Your task to perform on an android device: check storage Image 0: 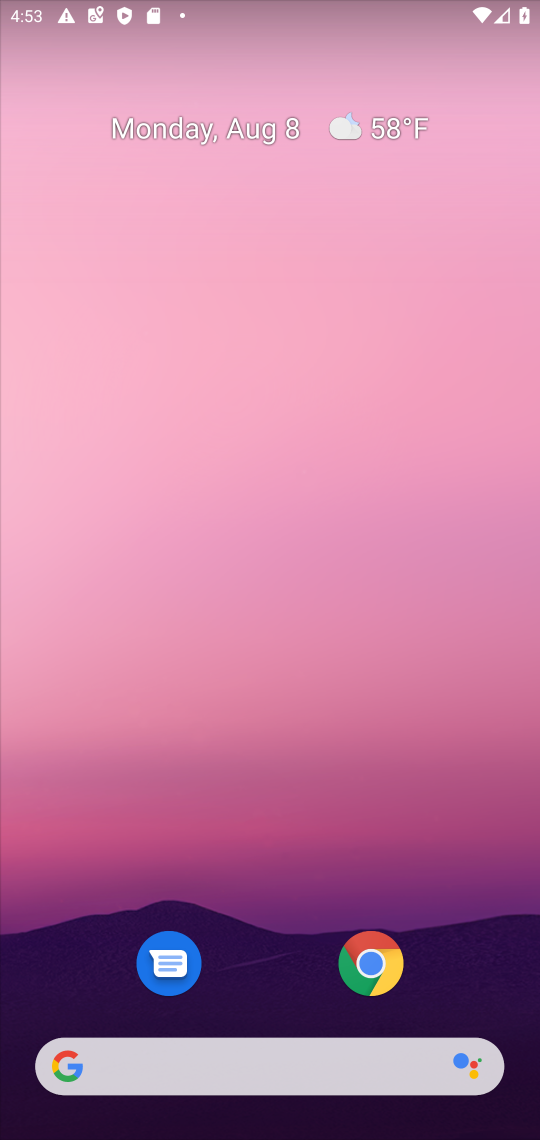
Step 0: drag from (355, 779) to (335, 308)
Your task to perform on an android device: check storage Image 1: 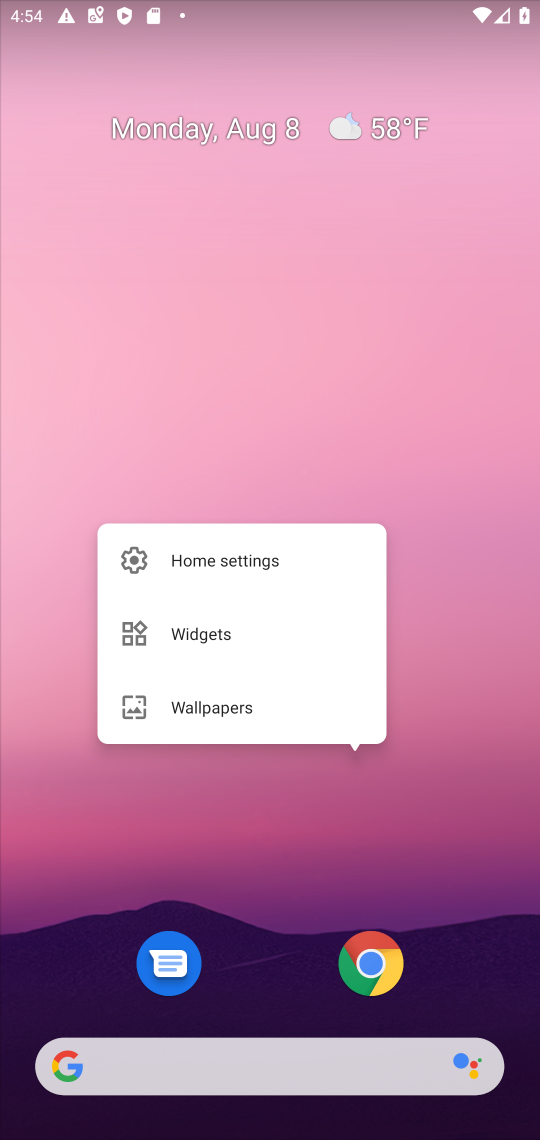
Step 1: drag from (261, 892) to (199, 321)
Your task to perform on an android device: check storage Image 2: 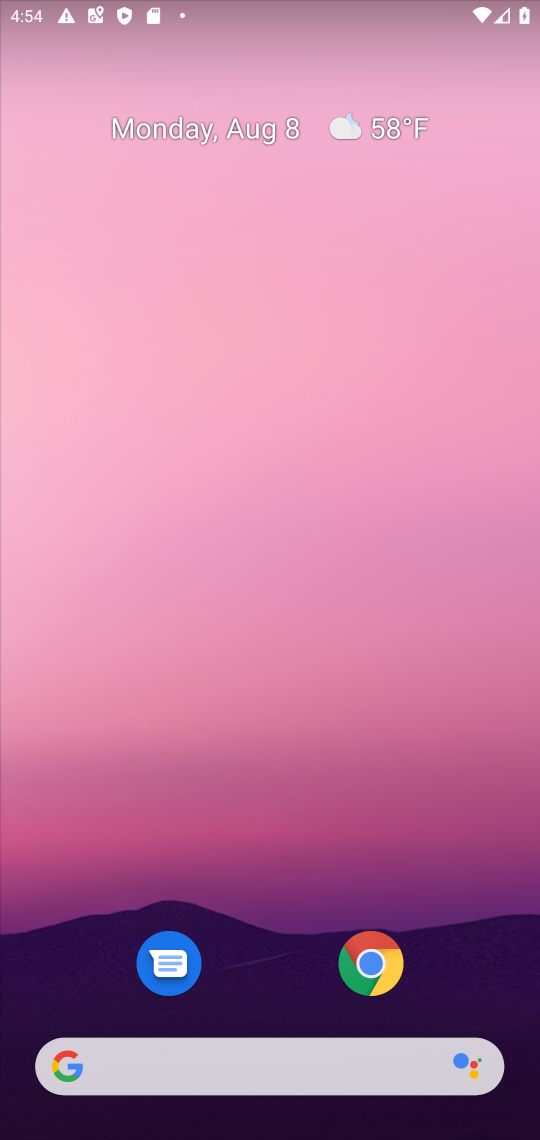
Step 2: click (239, 122)
Your task to perform on an android device: check storage Image 3: 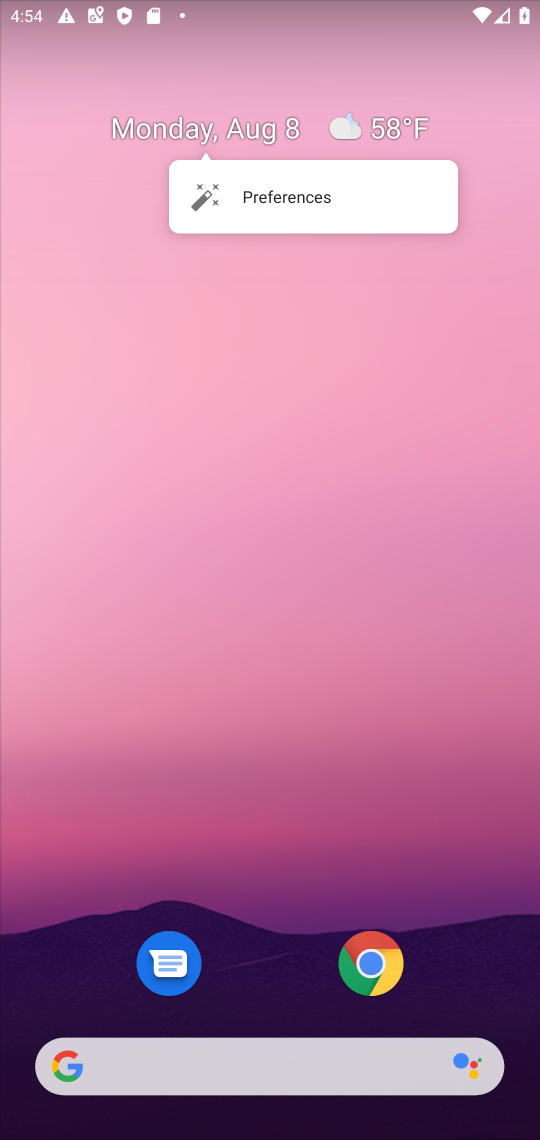
Step 3: click (308, 567)
Your task to perform on an android device: check storage Image 4: 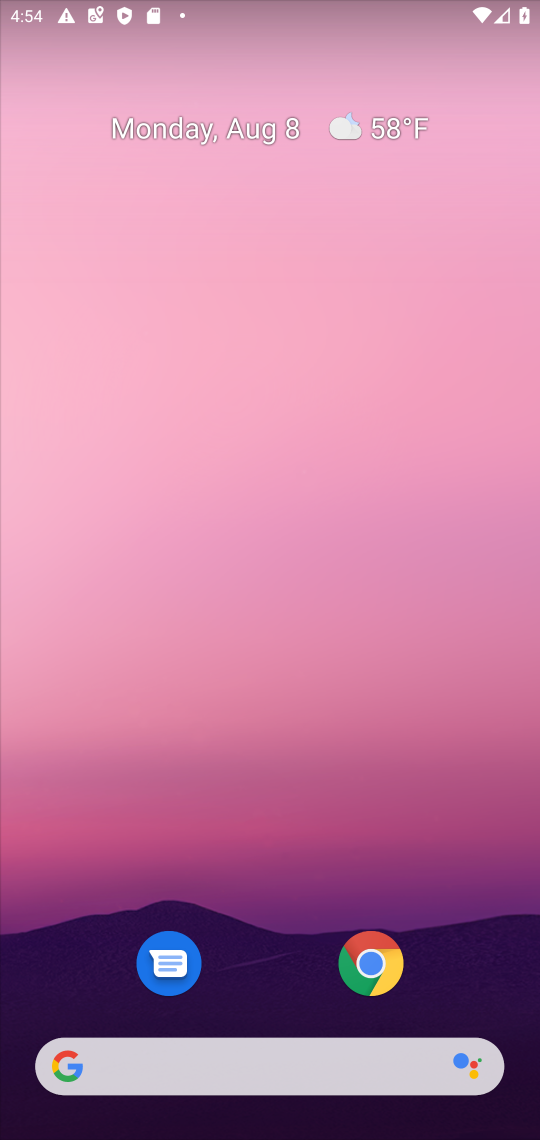
Step 4: drag from (232, 727) to (178, 19)
Your task to perform on an android device: check storage Image 5: 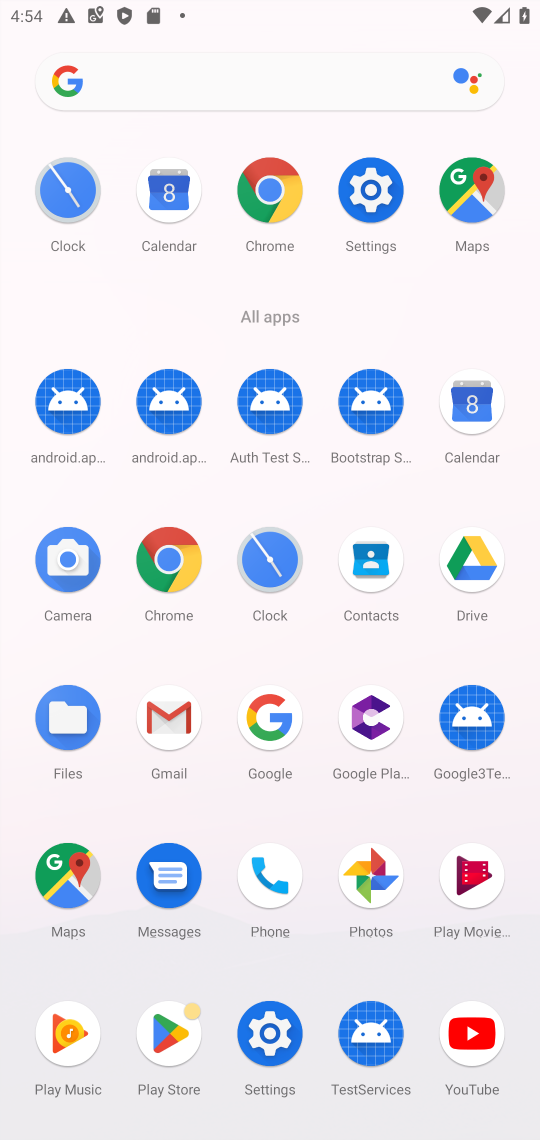
Step 5: click (263, 1005)
Your task to perform on an android device: check storage Image 6: 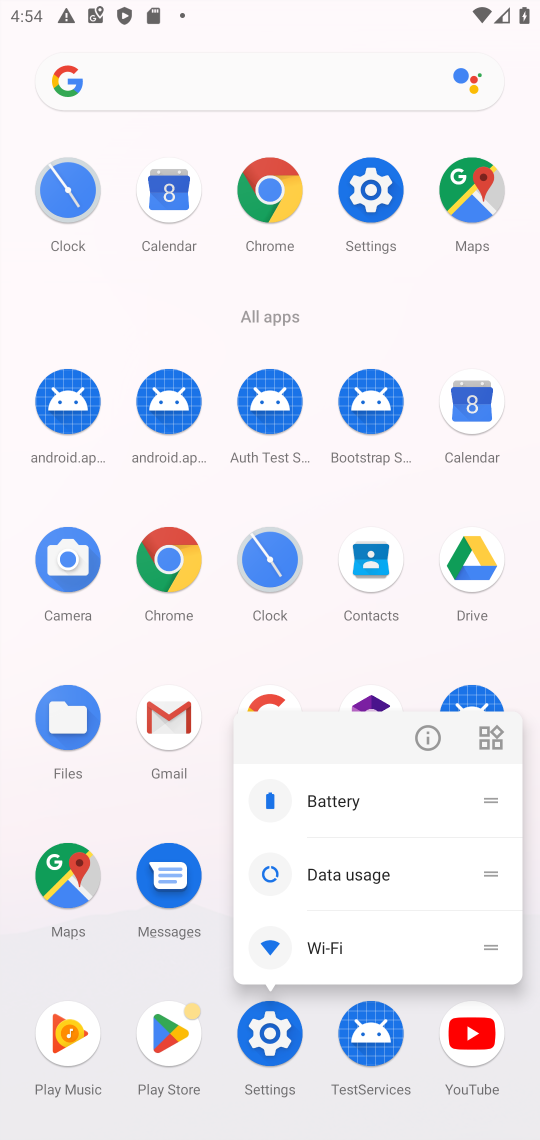
Step 6: click (267, 1025)
Your task to perform on an android device: check storage Image 7: 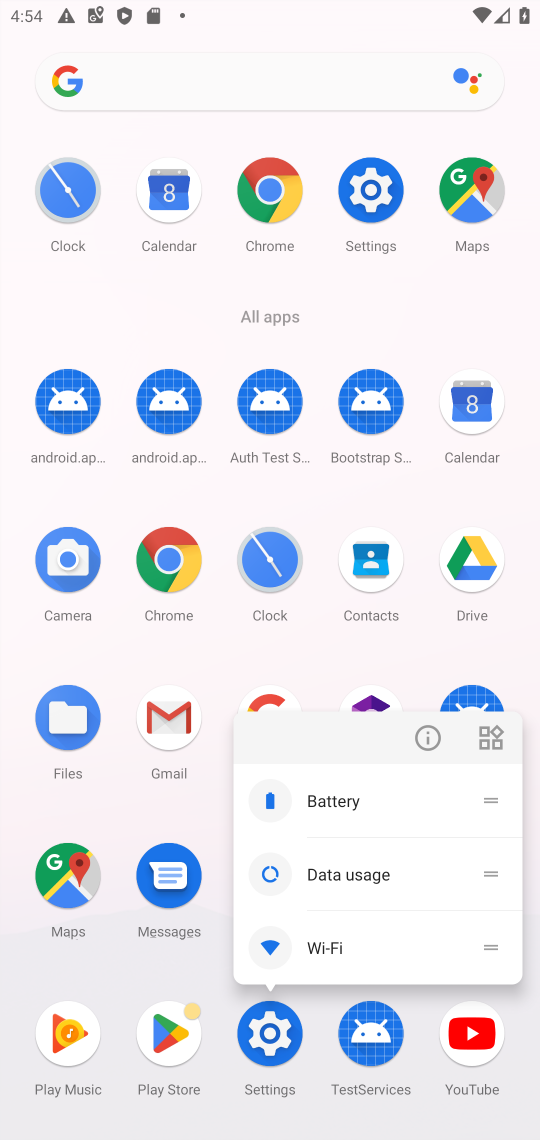
Step 7: click (267, 1025)
Your task to perform on an android device: check storage Image 8: 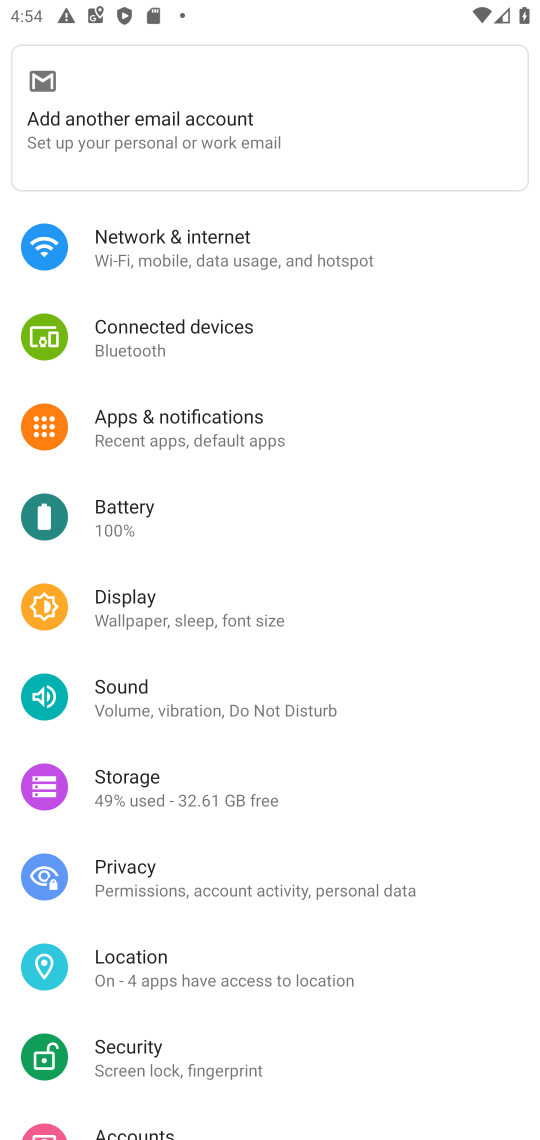
Step 8: click (224, 802)
Your task to perform on an android device: check storage Image 9: 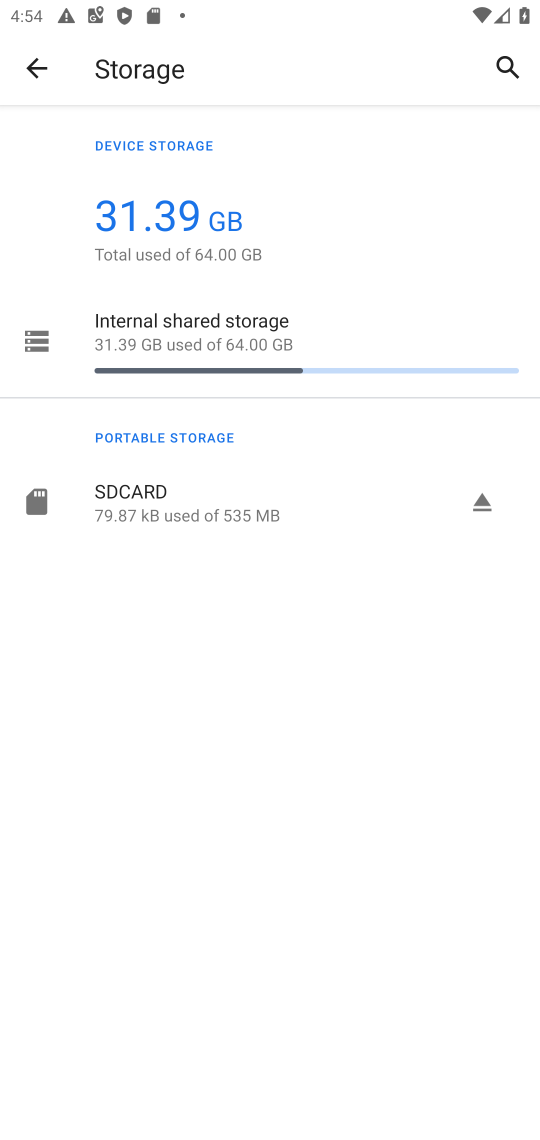
Step 9: task complete